Your task to perform on an android device: What's the weather? Image 0: 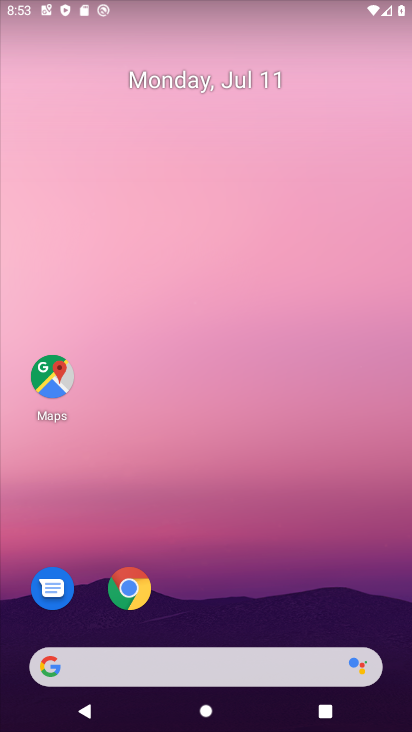
Step 0: click (176, 670)
Your task to perform on an android device: What's the weather? Image 1: 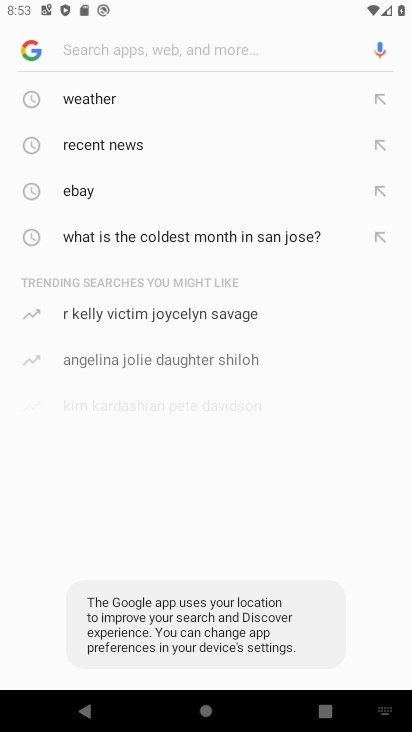
Step 1: click (121, 92)
Your task to perform on an android device: What's the weather? Image 2: 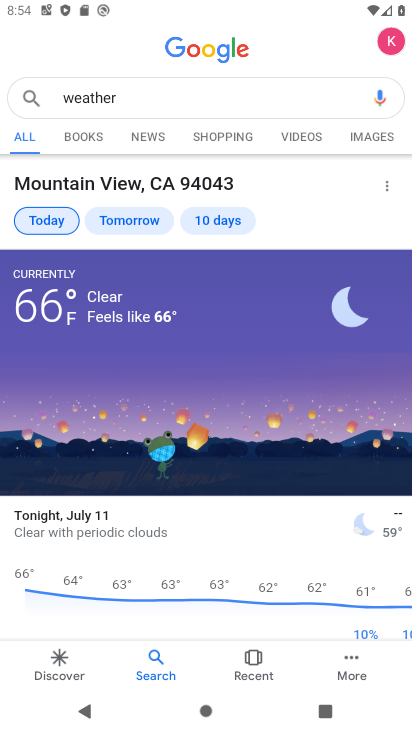
Step 2: task complete